Your task to perform on an android device: check android version Image 0: 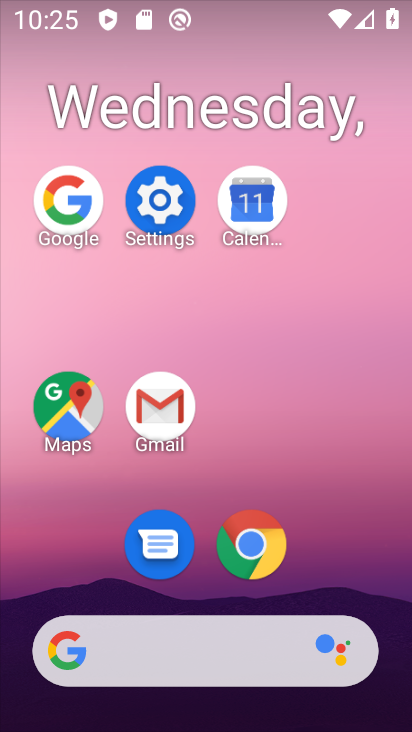
Step 0: click (140, 197)
Your task to perform on an android device: check android version Image 1: 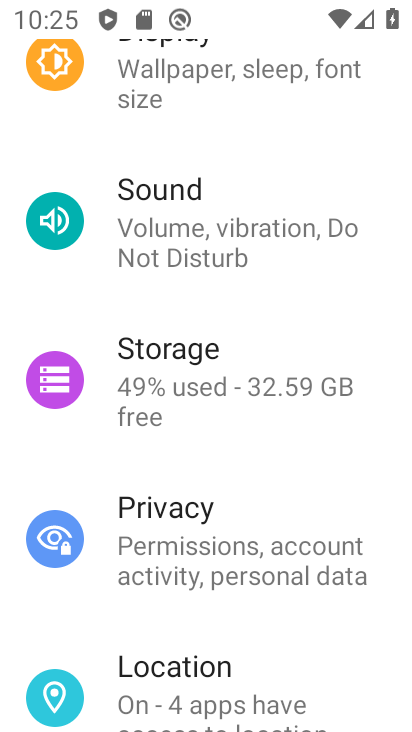
Step 1: drag from (311, 632) to (291, 146)
Your task to perform on an android device: check android version Image 2: 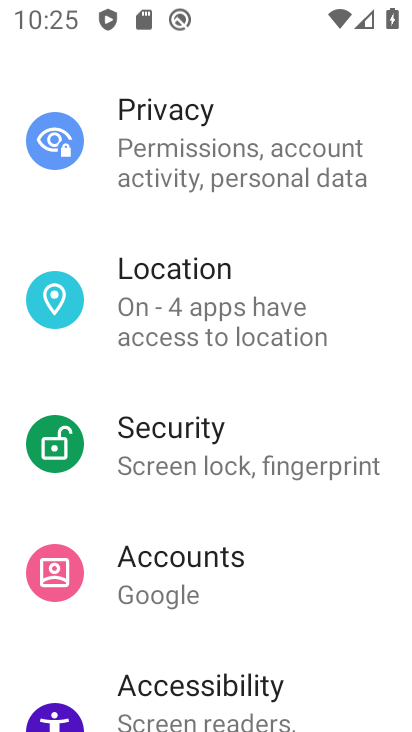
Step 2: drag from (326, 652) to (320, 188)
Your task to perform on an android device: check android version Image 3: 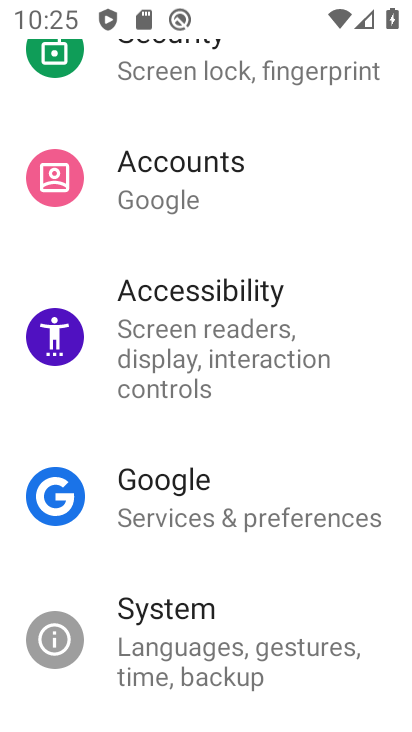
Step 3: drag from (343, 631) to (288, 277)
Your task to perform on an android device: check android version Image 4: 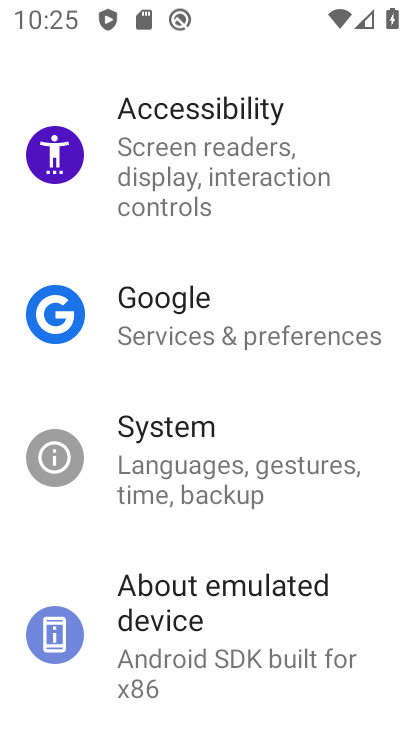
Step 4: click (300, 651)
Your task to perform on an android device: check android version Image 5: 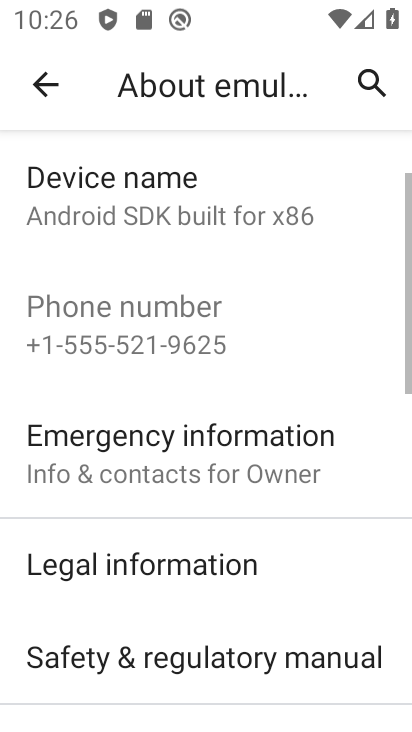
Step 5: drag from (289, 623) to (275, 227)
Your task to perform on an android device: check android version Image 6: 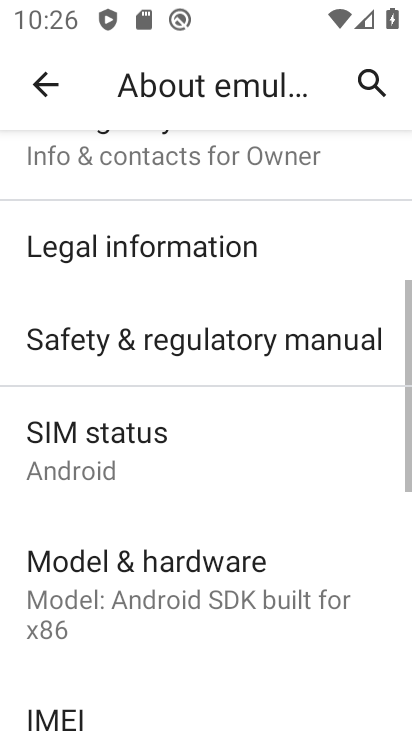
Step 6: drag from (272, 549) to (294, 203)
Your task to perform on an android device: check android version Image 7: 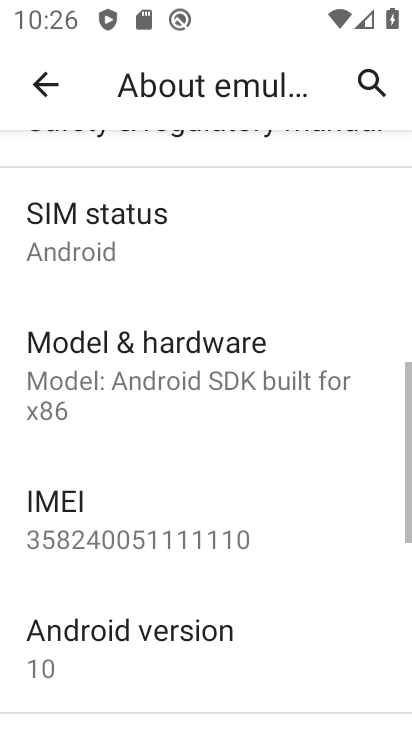
Step 7: click (249, 599)
Your task to perform on an android device: check android version Image 8: 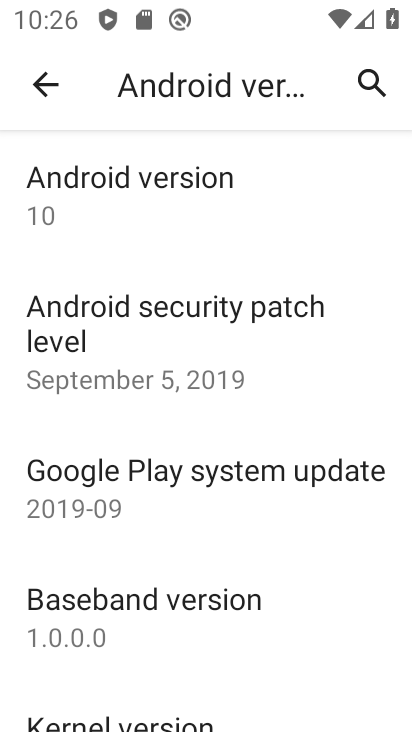
Step 8: task complete